Your task to perform on an android device: set an alarm Image 0: 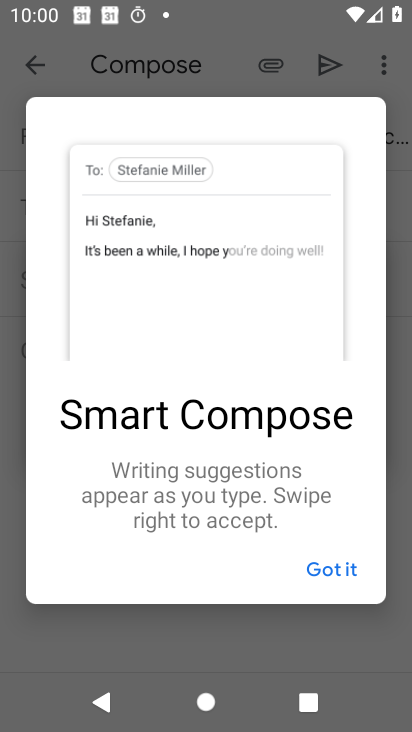
Step 0: press home button
Your task to perform on an android device: set an alarm Image 1: 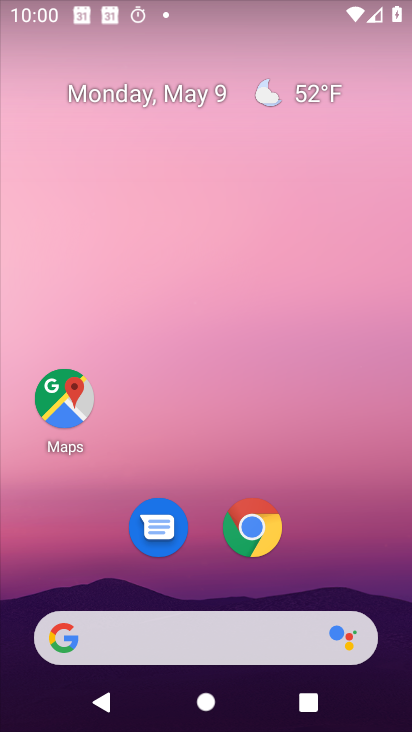
Step 1: drag from (213, 576) to (245, 26)
Your task to perform on an android device: set an alarm Image 2: 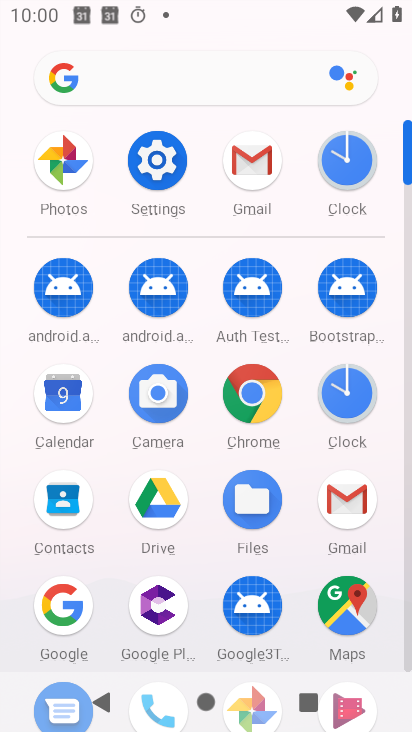
Step 2: click (348, 399)
Your task to perform on an android device: set an alarm Image 3: 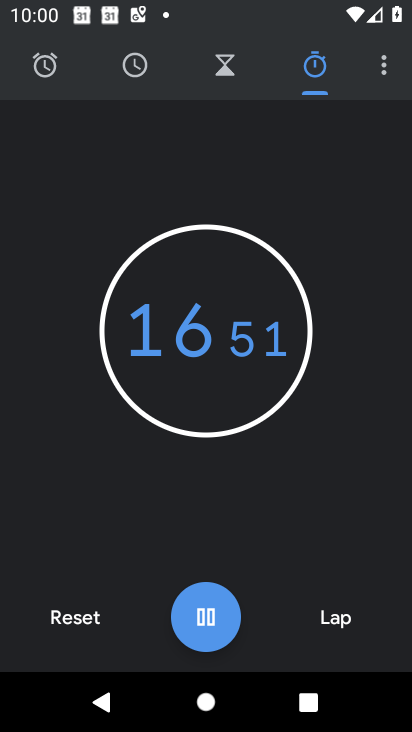
Step 3: click (43, 57)
Your task to perform on an android device: set an alarm Image 4: 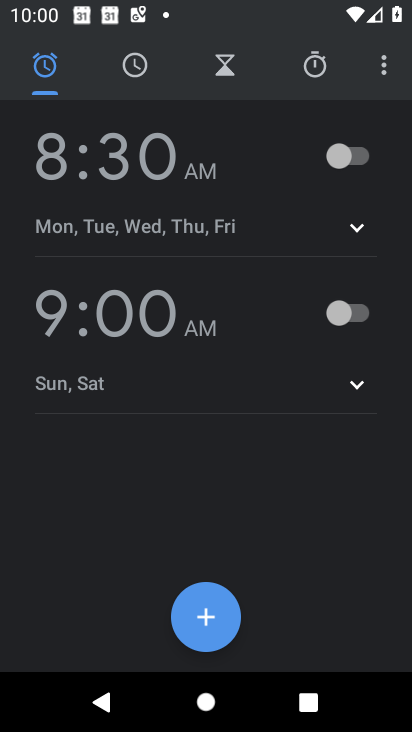
Step 4: click (339, 158)
Your task to perform on an android device: set an alarm Image 5: 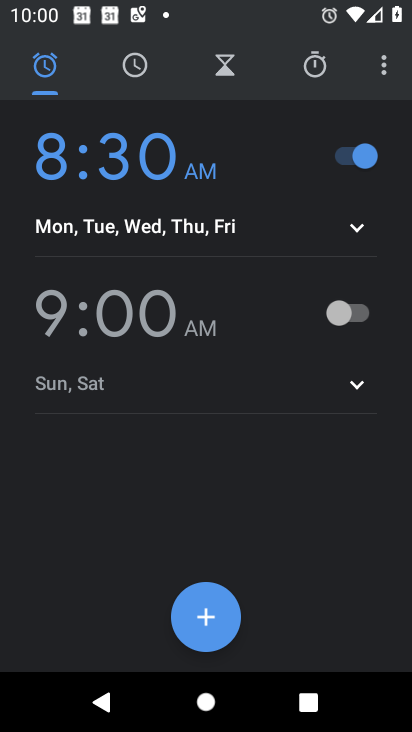
Step 5: task complete